Your task to perform on an android device: Search for Italian restaurants on Maps Image 0: 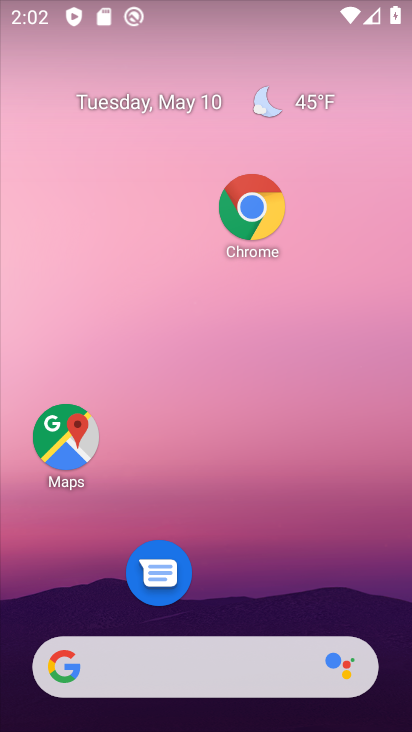
Step 0: press home button
Your task to perform on an android device: Search for Italian restaurants on Maps Image 1: 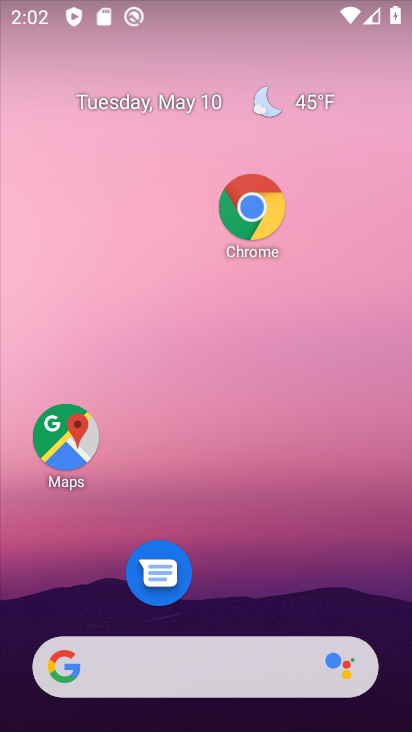
Step 1: click (81, 445)
Your task to perform on an android device: Search for Italian restaurants on Maps Image 2: 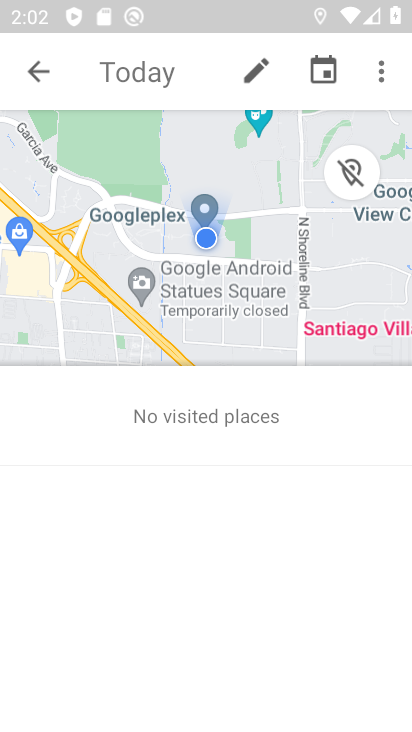
Step 2: click (38, 75)
Your task to perform on an android device: Search for Italian restaurants on Maps Image 3: 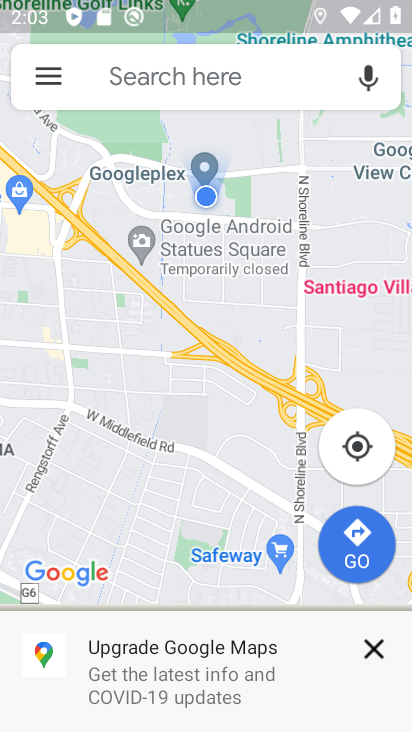
Step 3: click (226, 70)
Your task to perform on an android device: Search for Italian restaurants on Maps Image 4: 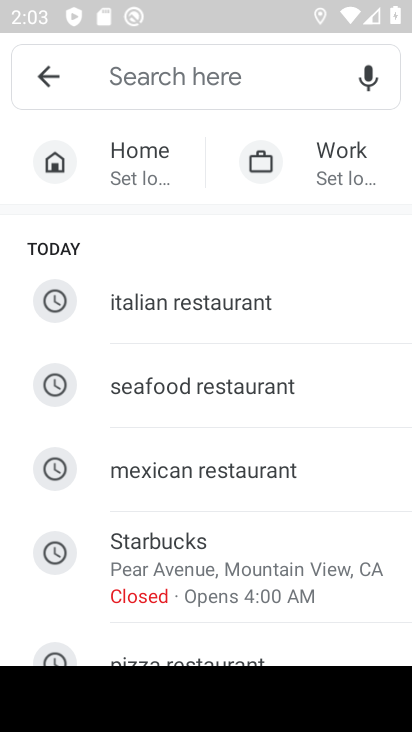
Step 4: type "italian restaurants"
Your task to perform on an android device: Search for Italian restaurants on Maps Image 5: 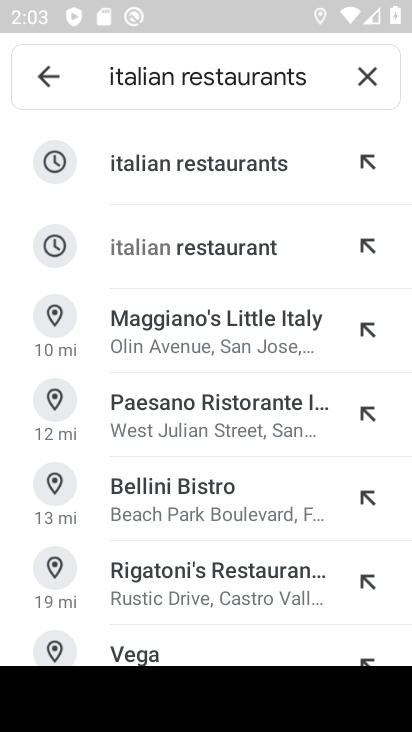
Step 5: click (209, 157)
Your task to perform on an android device: Search for Italian restaurants on Maps Image 6: 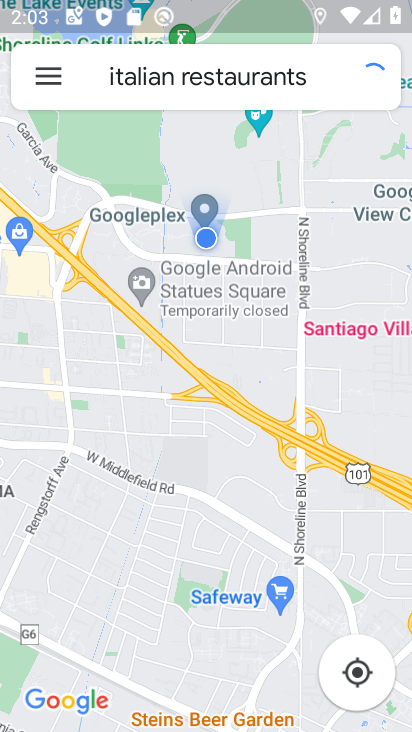
Step 6: task complete